Your task to perform on an android device: Search for sushi restaurants on Maps Image 0: 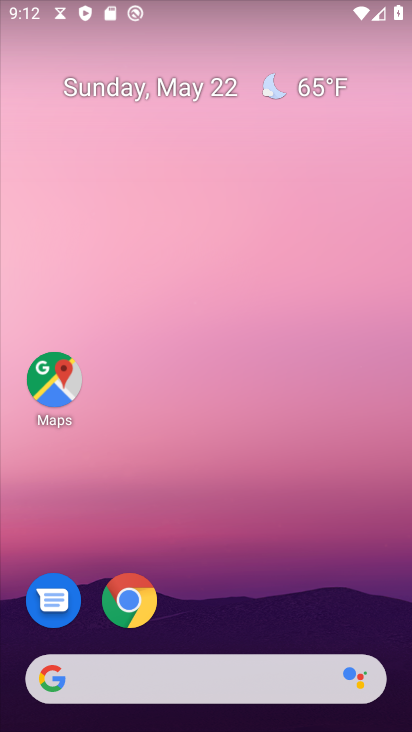
Step 0: drag from (191, 612) to (190, 203)
Your task to perform on an android device: Search for sushi restaurants on Maps Image 1: 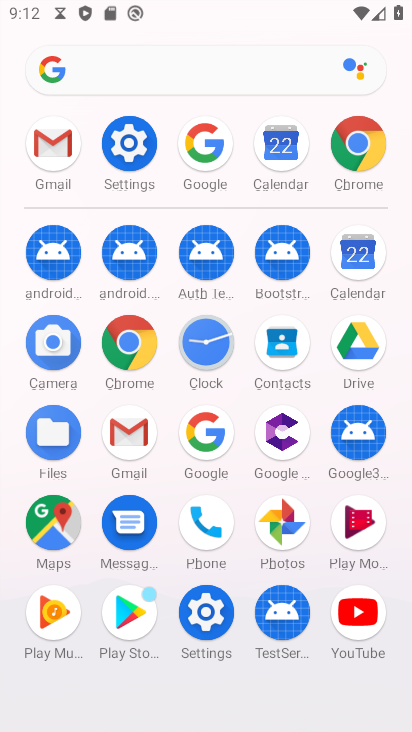
Step 1: click (63, 532)
Your task to perform on an android device: Search for sushi restaurants on Maps Image 2: 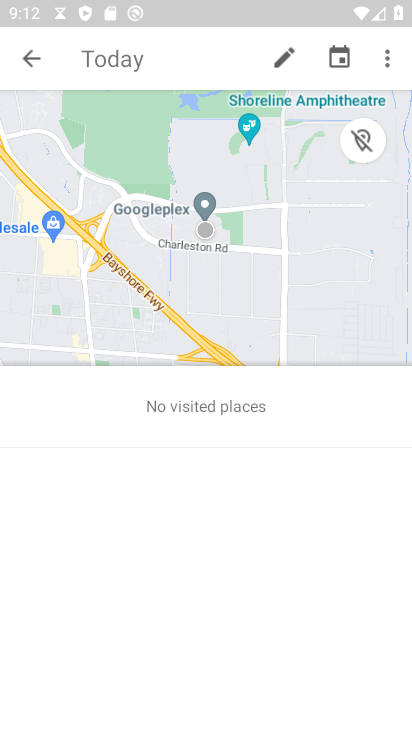
Step 2: click (42, 63)
Your task to perform on an android device: Search for sushi restaurants on Maps Image 3: 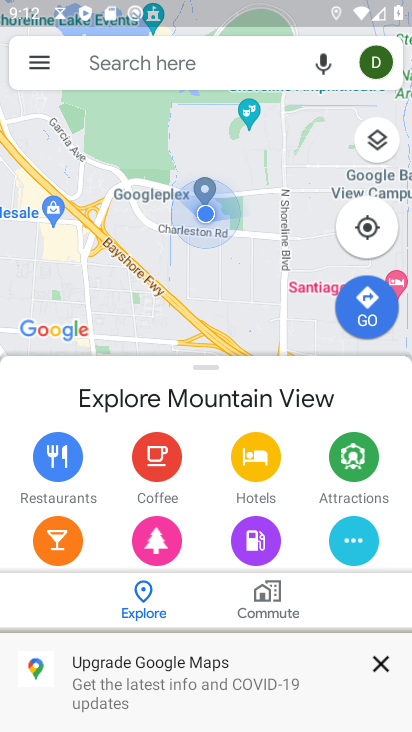
Step 3: click (100, 65)
Your task to perform on an android device: Search for sushi restaurants on Maps Image 4: 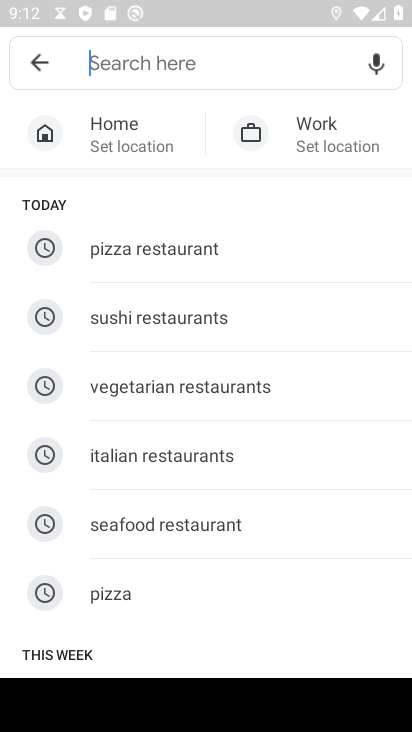
Step 4: click (158, 326)
Your task to perform on an android device: Search for sushi restaurants on Maps Image 5: 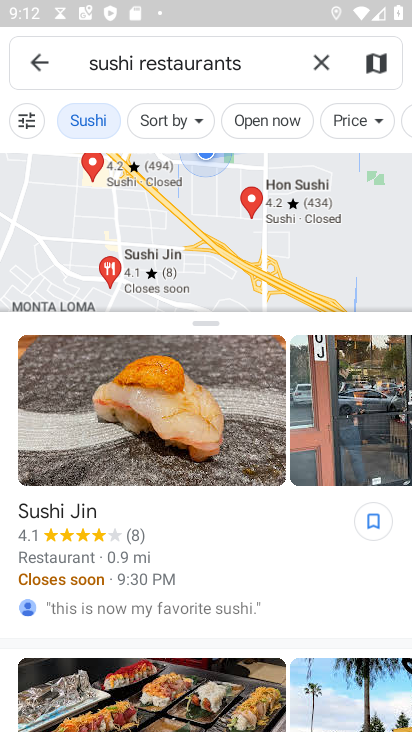
Step 5: task complete